Your task to perform on an android device: Search for razer deathadder on costco.com, select the first entry, add it to the cart, then select checkout. Image 0: 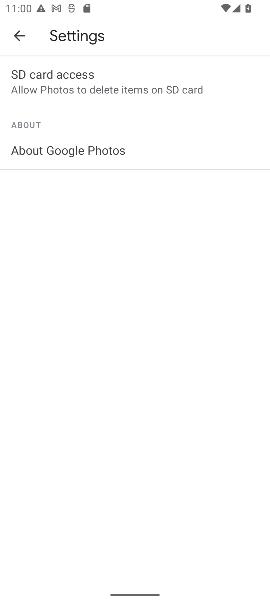
Step 0: press home button
Your task to perform on an android device: Search for razer deathadder on costco.com, select the first entry, add it to the cart, then select checkout. Image 1: 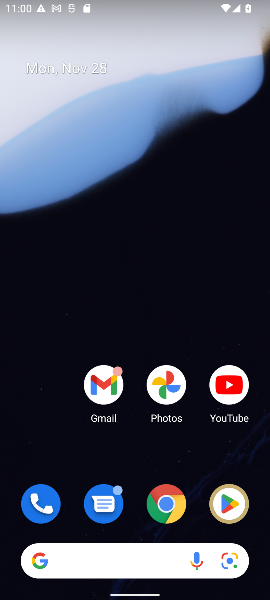
Step 1: click (169, 504)
Your task to perform on an android device: Search for razer deathadder on costco.com, select the first entry, add it to the cart, then select checkout. Image 2: 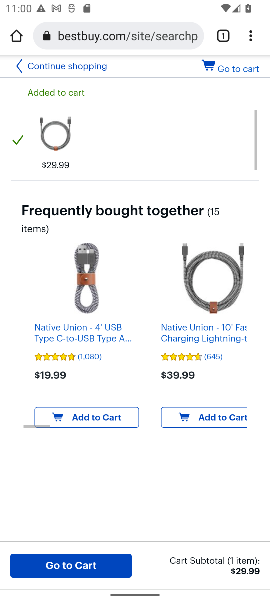
Step 2: click (119, 35)
Your task to perform on an android device: Search for razer deathadder on costco.com, select the first entry, add it to the cart, then select checkout. Image 3: 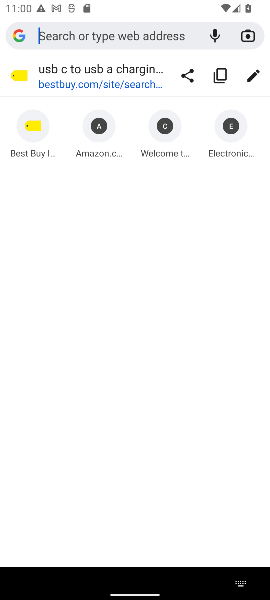
Step 3: type "costco.com"
Your task to perform on an android device: Search for razer deathadder on costco.com, select the first entry, add it to the cart, then select checkout. Image 4: 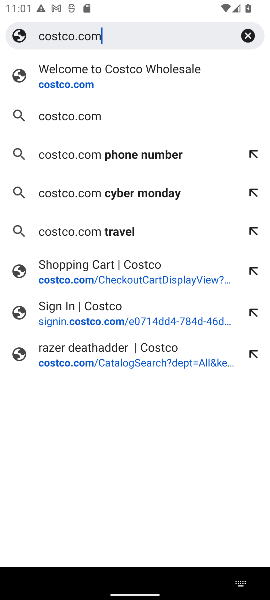
Step 4: click (50, 89)
Your task to perform on an android device: Search for razer deathadder on costco.com, select the first entry, add it to the cart, then select checkout. Image 5: 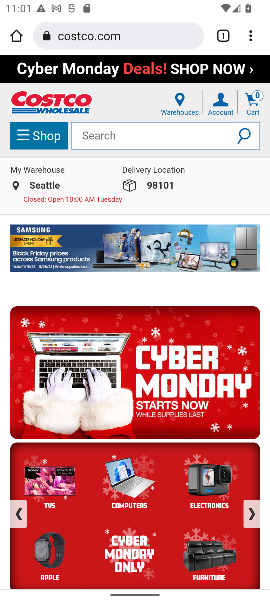
Step 5: click (88, 139)
Your task to perform on an android device: Search for razer deathadder on costco.com, select the first entry, add it to the cart, then select checkout. Image 6: 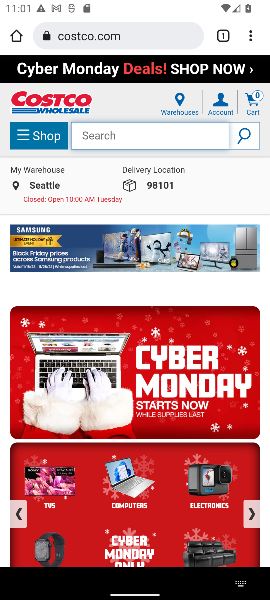
Step 6: type "razer deathadder"
Your task to perform on an android device: Search for razer deathadder on costco.com, select the first entry, add it to the cart, then select checkout. Image 7: 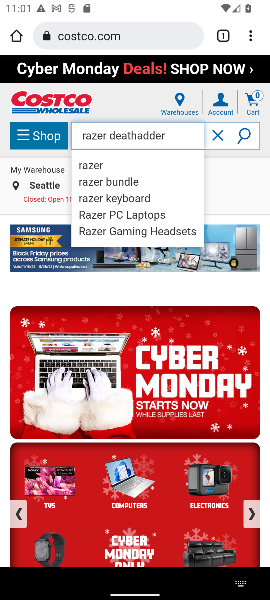
Step 7: click (250, 132)
Your task to perform on an android device: Search for razer deathadder on costco.com, select the first entry, add it to the cart, then select checkout. Image 8: 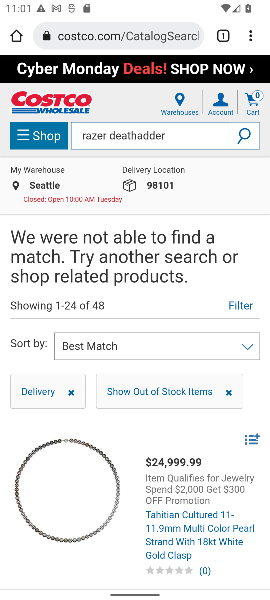
Step 8: task complete